Your task to perform on an android device: turn off javascript in the chrome app Image 0: 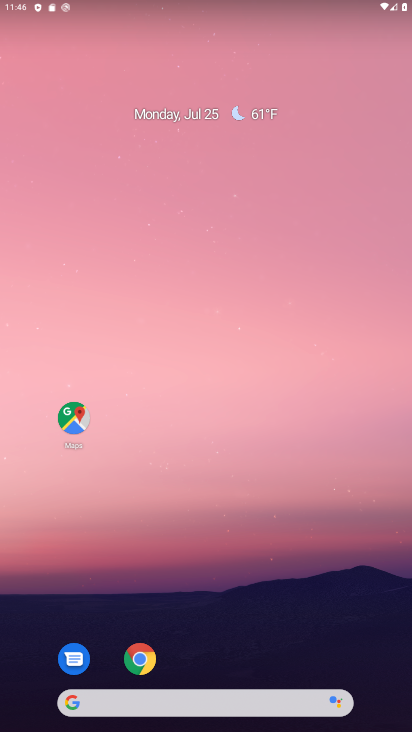
Step 0: click (139, 657)
Your task to perform on an android device: turn off javascript in the chrome app Image 1: 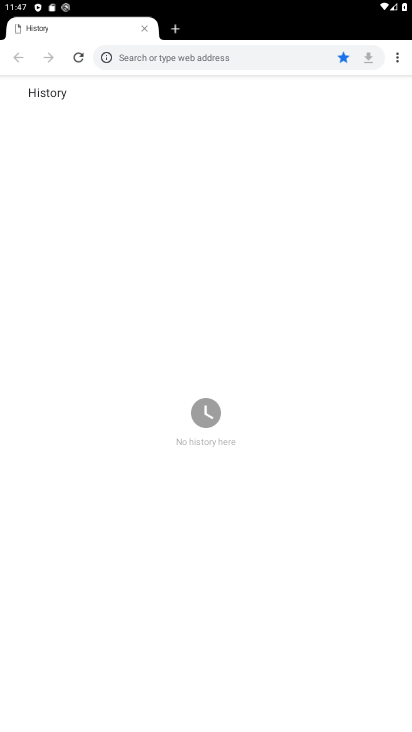
Step 1: click (396, 60)
Your task to perform on an android device: turn off javascript in the chrome app Image 2: 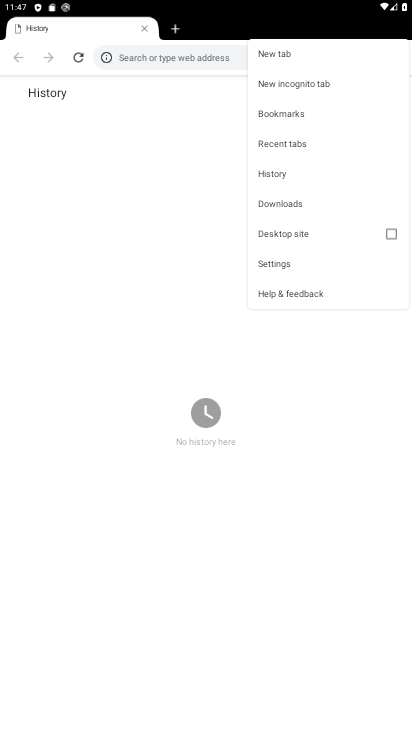
Step 2: click (280, 258)
Your task to perform on an android device: turn off javascript in the chrome app Image 3: 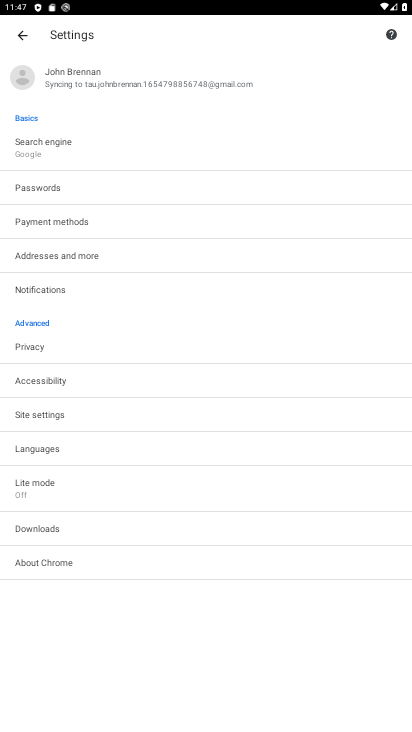
Step 3: click (41, 412)
Your task to perform on an android device: turn off javascript in the chrome app Image 4: 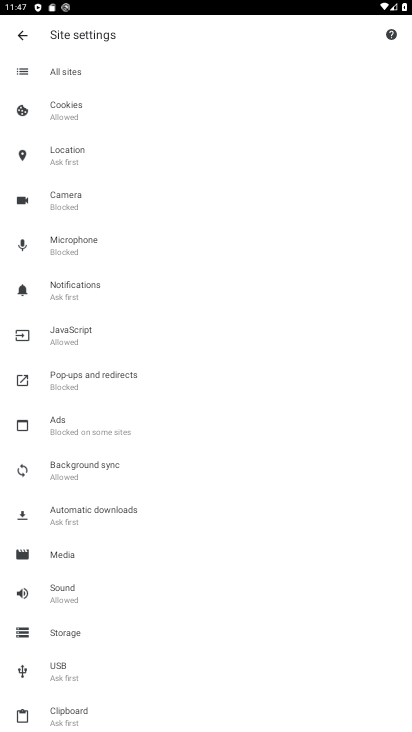
Step 4: click (67, 331)
Your task to perform on an android device: turn off javascript in the chrome app Image 5: 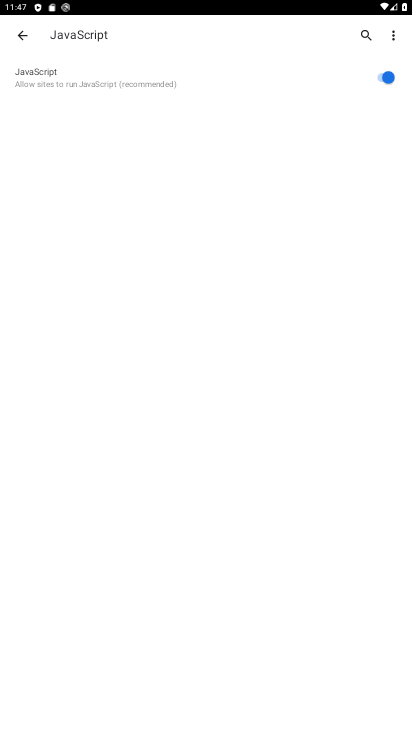
Step 5: click (384, 82)
Your task to perform on an android device: turn off javascript in the chrome app Image 6: 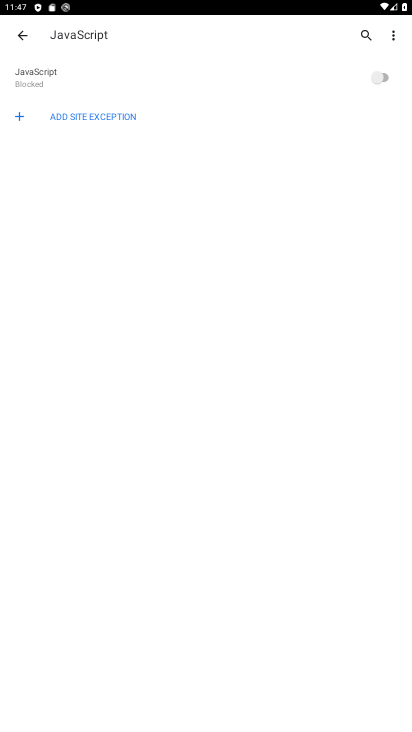
Step 6: task complete